Your task to perform on an android device: turn on airplane mode Image 0: 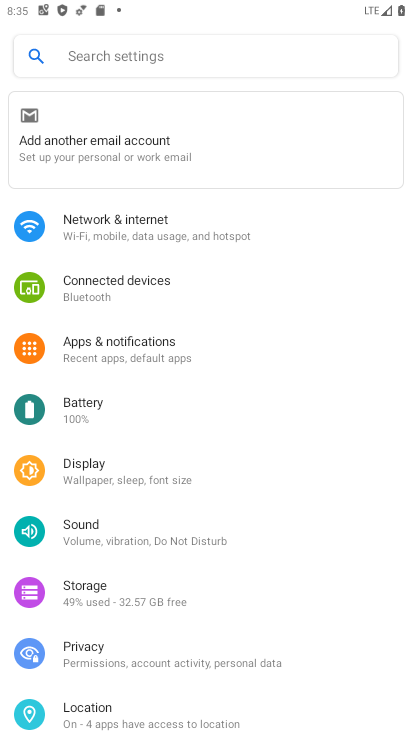
Step 0: press home button
Your task to perform on an android device: turn on airplane mode Image 1: 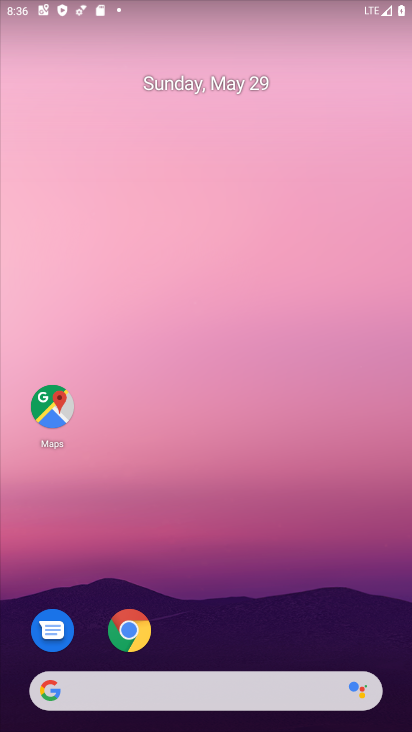
Step 1: drag from (195, 630) to (191, 224)
Your task to perform on an android device: turn on airplane mode Image 2: 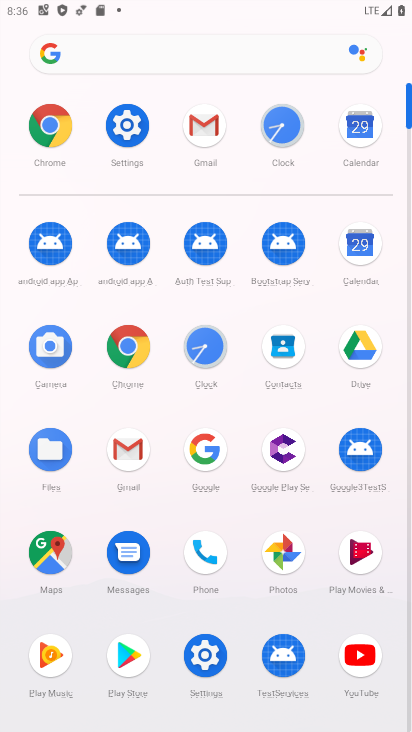
Step 2: click (138, 127)
Your task to perform on an android device: turn on airplane mode Image 3: 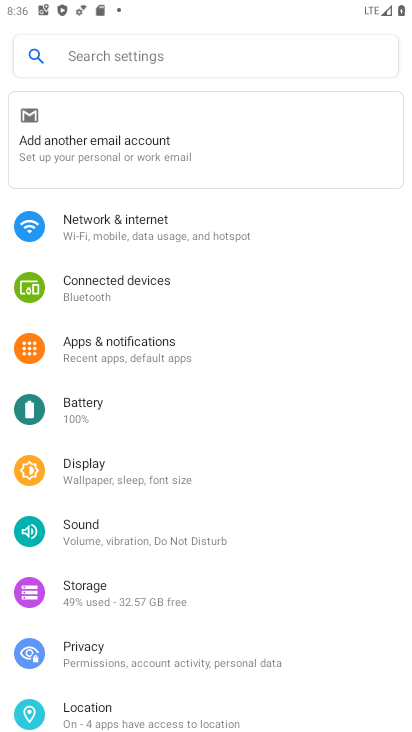
Step 3: click (119, 210)
Your task to perform on an android device: turn on airplane mode Image 4: 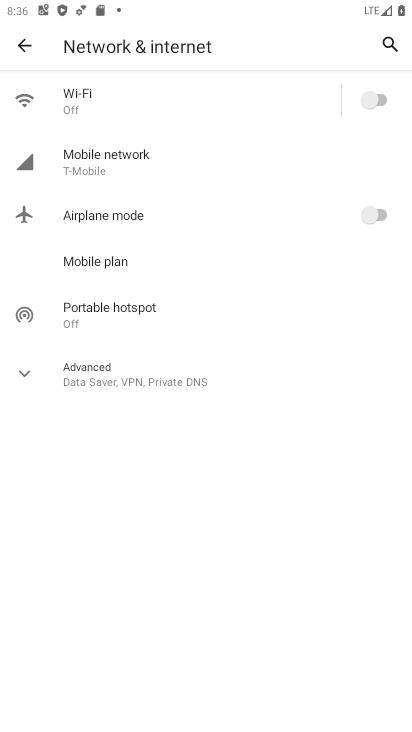
Step 4: click (366, 214)
Your task to perform on an android device: turn on airplane mode Image 5: 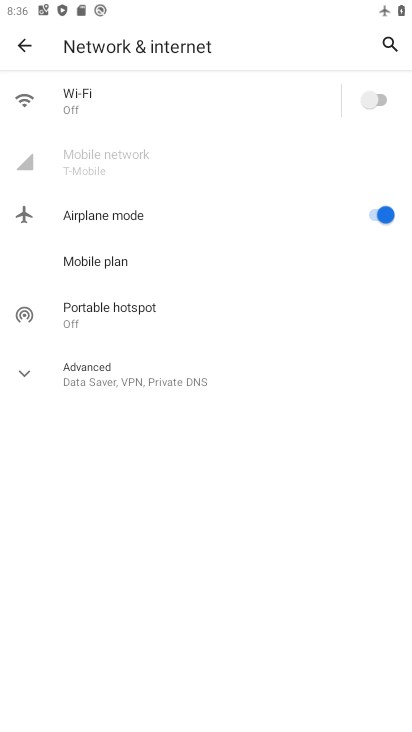
Step 5: task complete